Your task to perform on an android device: Go to Reddit.com Image 0: 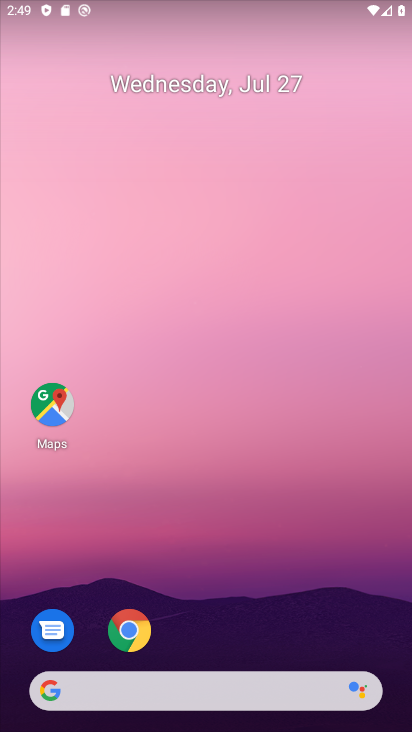
Step 0: press back button
Your task to perform on an android device: Go to Reddit.com Image 1: 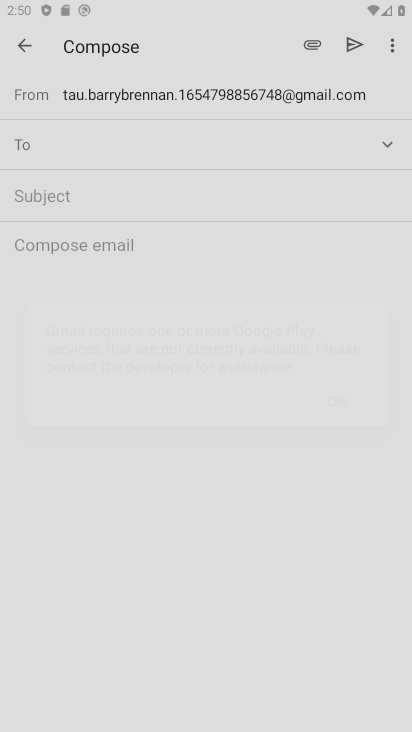
Step 1: click (165, 207)
Your task to perform on an android device: Go to Reddit.com Image 2: 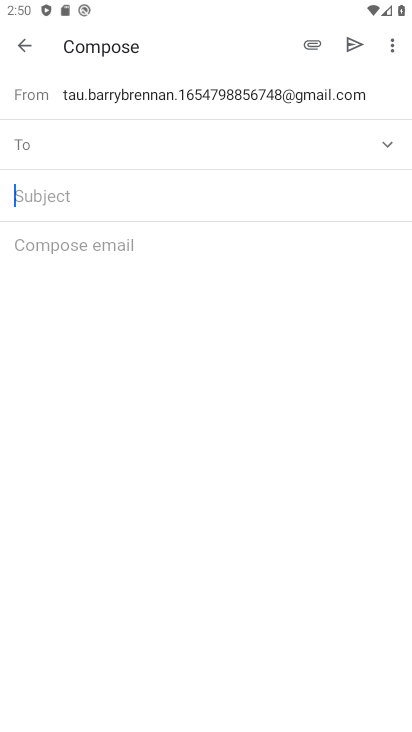
Step 2: drag from (207, 490) to (110, 102)
Your task to perform on an android device: Go to Reddit.com Image 3: 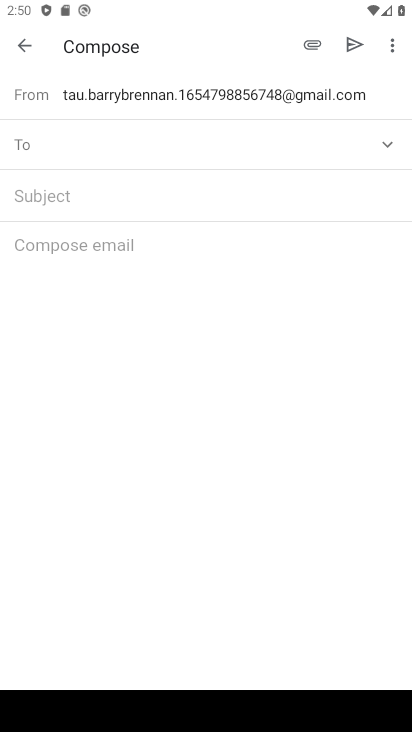
Step 3: drag from (174, 448) to (120, 151)
Your task to perform on an android device: Go to Reddit.com Image 4: 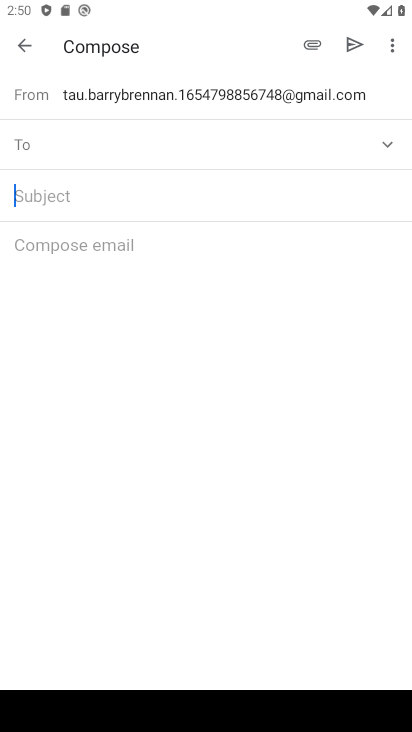
Step 4: click (20, 32)
Your task to perform on an android device: Go to Reddit.com Image 5: 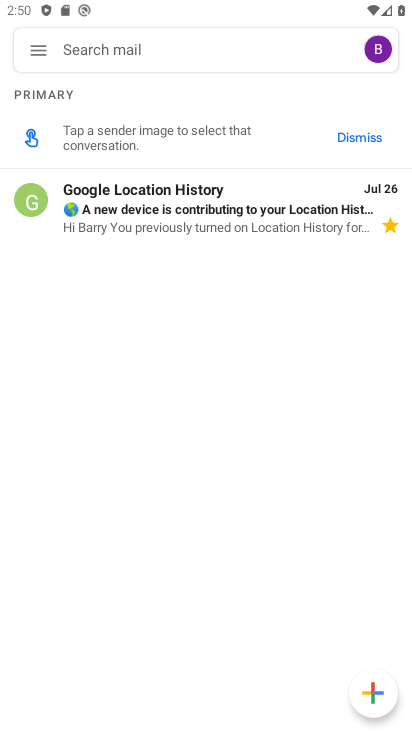
Step 5: press back button
Your task to perform on an android device: Go to Reddit.com Image 6: 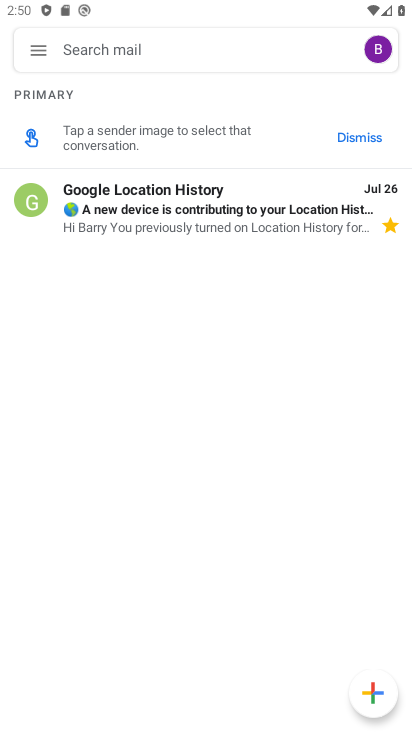
Step 6: press back button
Your task to perform on an android device: Go to Reddit.com Image 7: 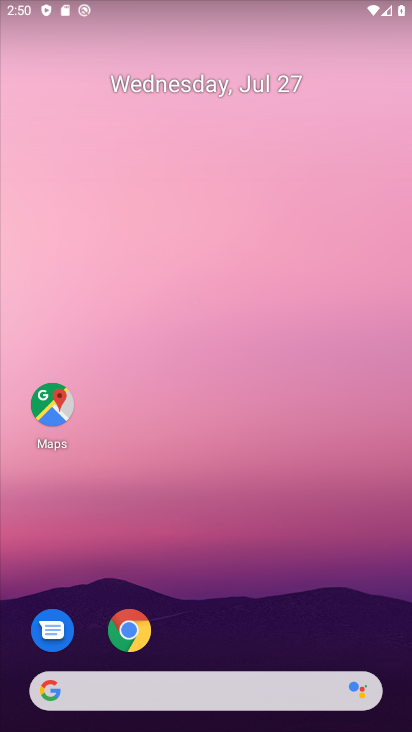
Step 7: click (98, 12)
Your task to perform on an android device: Go to Reddit.com Image 8: 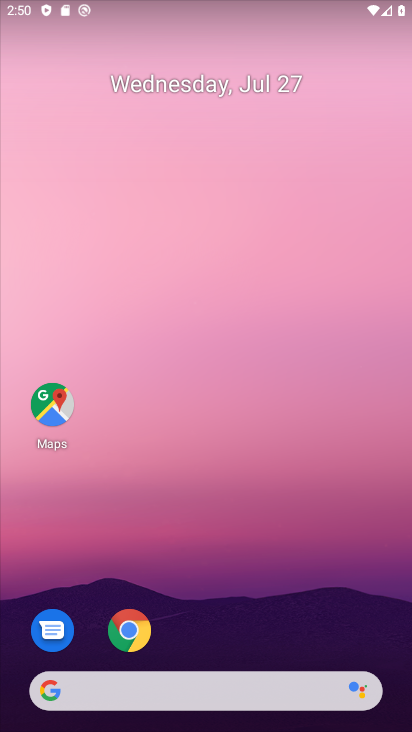
Step 8: drag from (166, 260) to (140, 146)
Your task to perform on an android device: Go to Reddit.com Image 9: 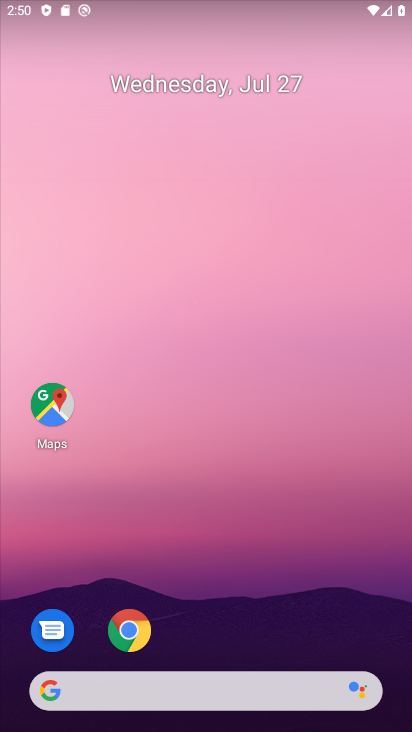
Step 9: drag from (154, 373) to (70, 10)
Your task to perform on an android device: Go to Reddit.com Image 10: 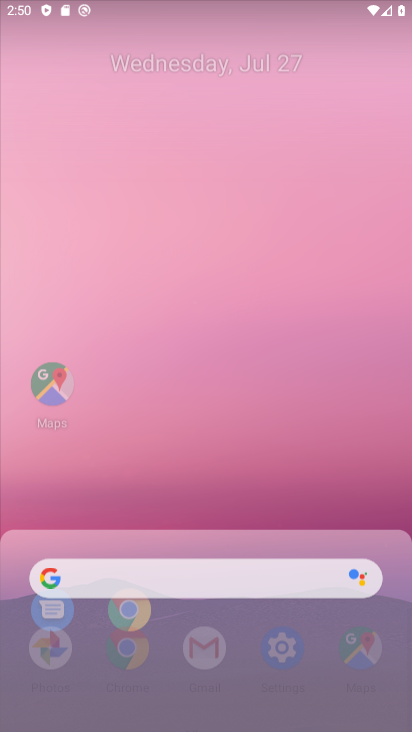
Step 10: drag from (163, 418) to (125, 268)
Your task to perform on an android device: Go to Reddit.com Image 11: 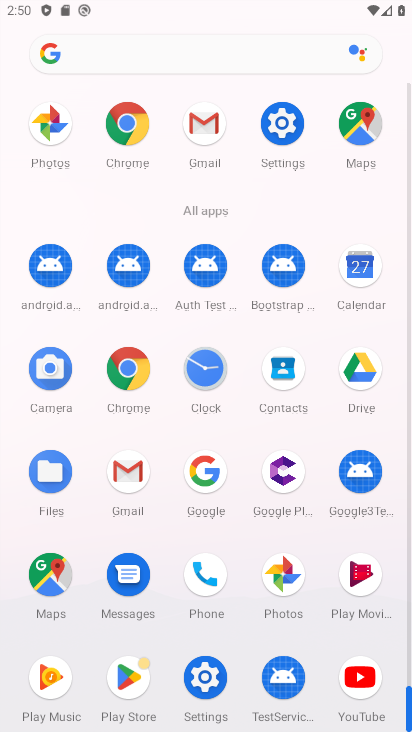
Step 11: drag from (160, 540) to (126, 114)
Your task to perform on an android device: Go to Reddit.com Image 12: 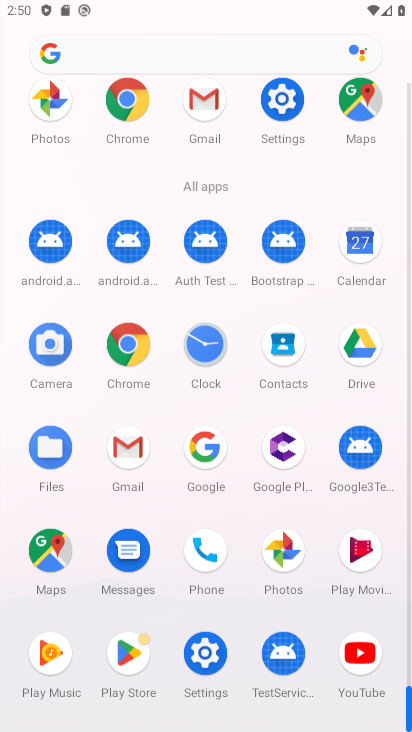
Step 12: drag from (312, 532) to (249, 205)
Your task to perform on an android device: Go to Reddit.com Image 13: 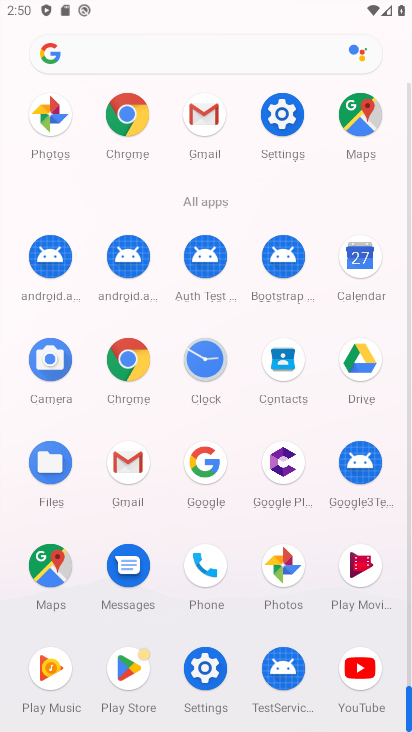
Step 13: click (131, 112)
Your task to perform on an android device: Go to Reddit.com Image 14: 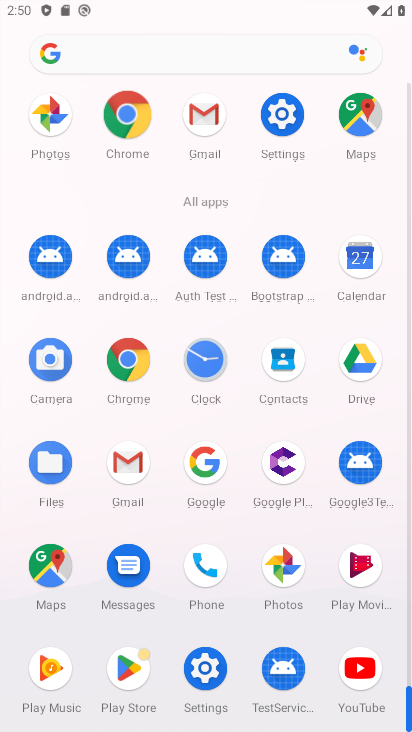
Step 14: click (130, 110)
Your task to perform on an android device: Go to Reddit.com Image 15: 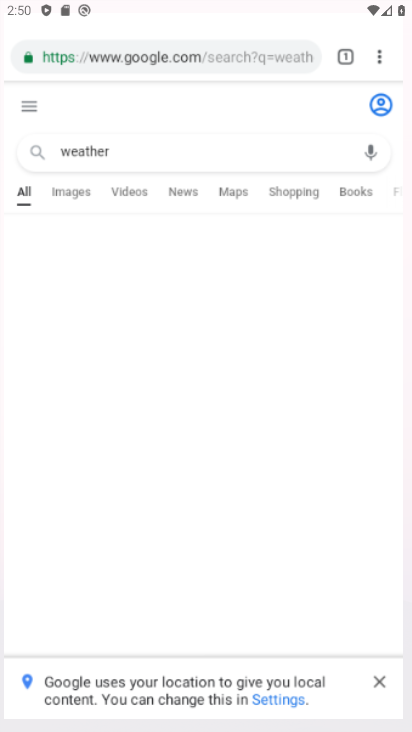
Step 15: click (130, 110)
Your task to perform on an android device: Go to Reddit.com Image 16: 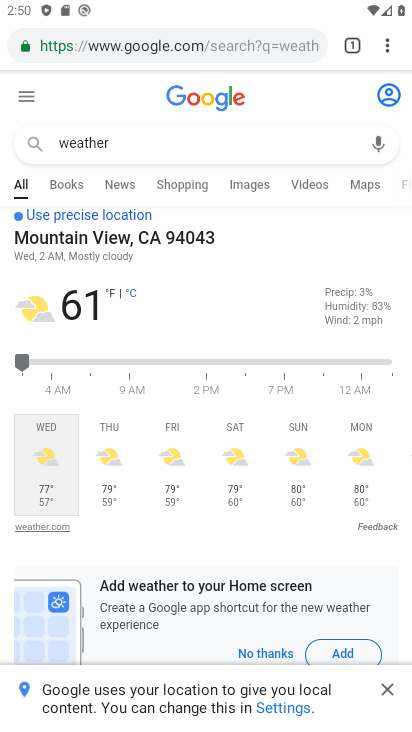
Step 16: click (114, 139)
Your task to perform on an android device: Go to Reddit.com Image 17: 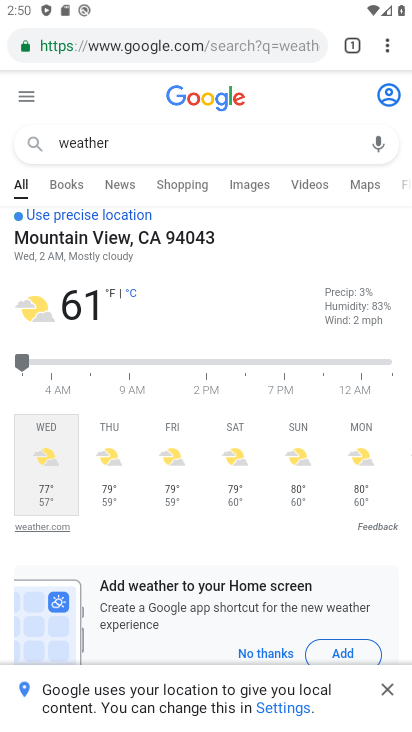
Step 17: click (114, 139)
Your task to perform on an android device: Go to Reddit.com Image 18: 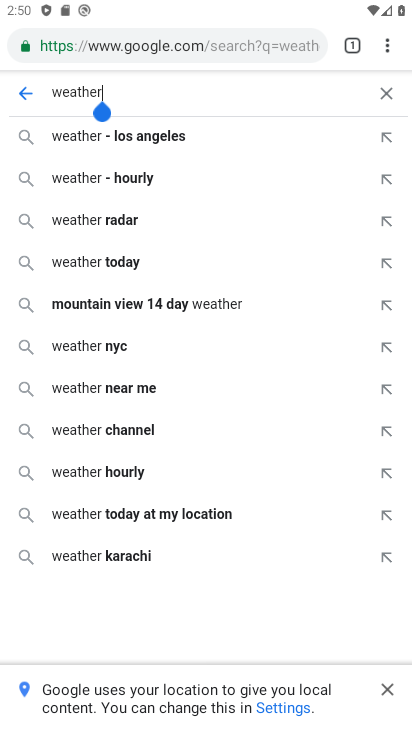
Step 18: click (117, 140)
Your task to perform on an android device: Go to Reddit.com Image 19: 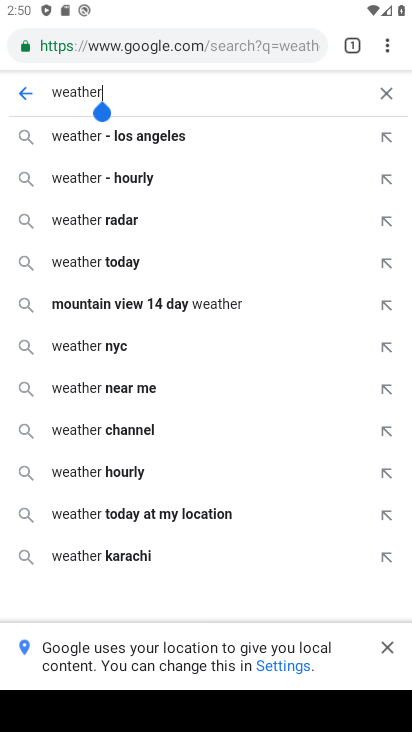
Step 19: click (117, 140)
Your task to perform on an android device: Go to Reddit.com Image 20: 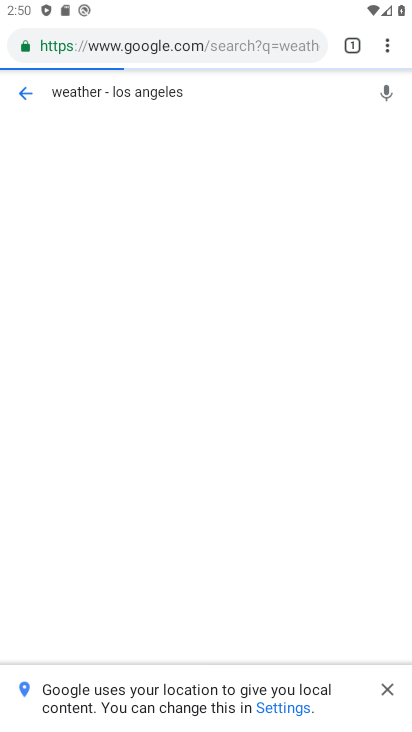
Step 20: click (25, 91)
Your task to perform on an android device: Go to Reddit.com Image 21: 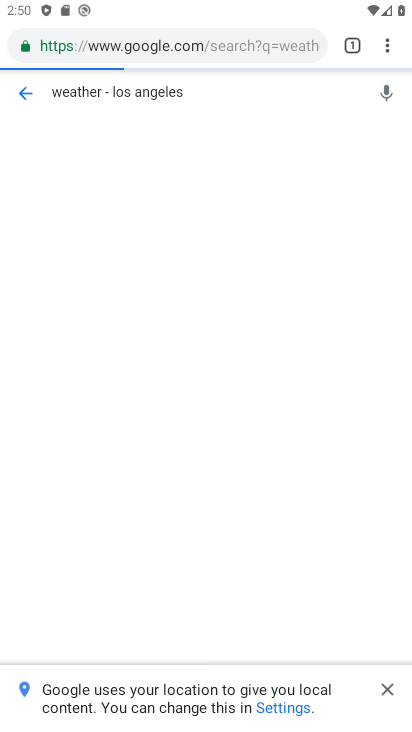
Step 21: click (25, 90)
Your task to perform on an android device: Go to Reddit.com Image 22: 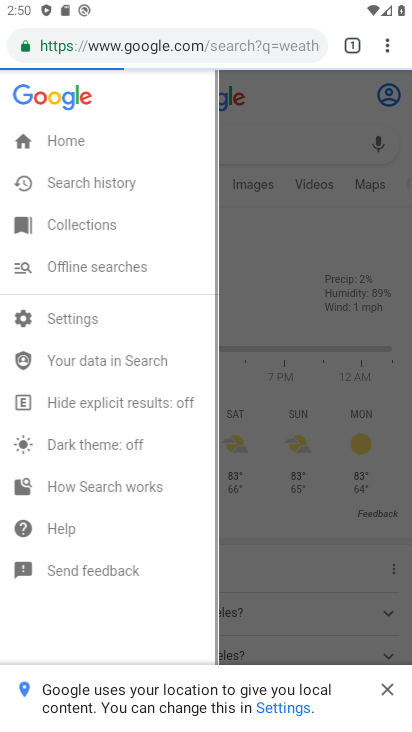
Step 22: click (345, 279)
Your task to perform on an android device: Go to Reddit.com Image 23: 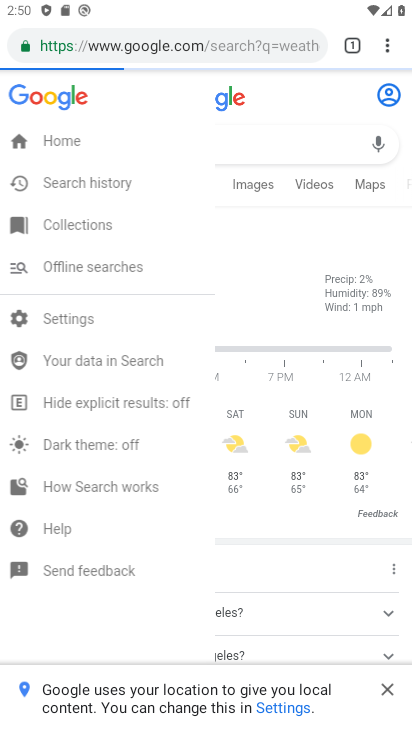
Step 23: drag from (185, 277) to (316, 245)
Your task to perform on an android device: Go to Reddit.com Image 24: 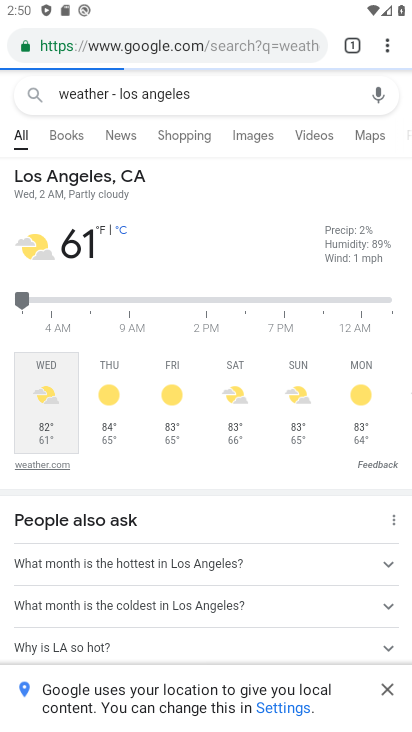
Step 24: click (222, 94)
Your task to perform on an android device: Go to Reddit.com Image 25: 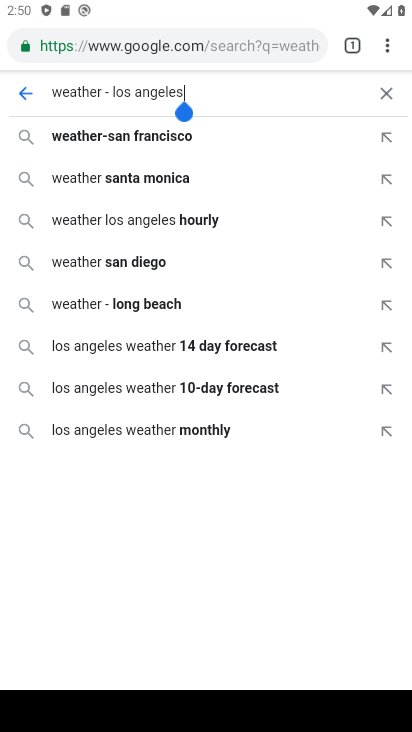
Step 25: drag from (387, 41) to (206, 86)
Your task to perform on an android device: Go to Reddit.com Image 26: 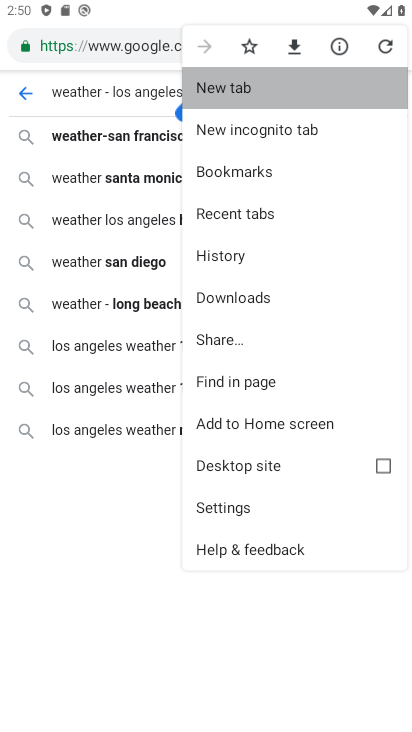
Step 26: click (206, 85)
Your task to perform on an android device: Go to Reddit.com Image 27: 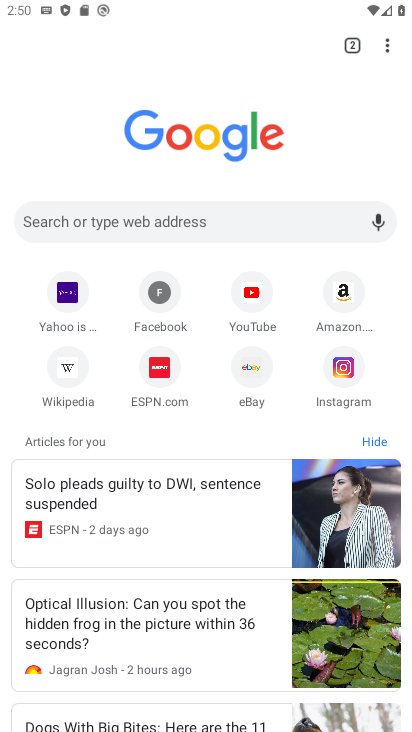
Step 27: click (83, 215)
Your task to perform on an android device: Go to Reddit.com Image 28: 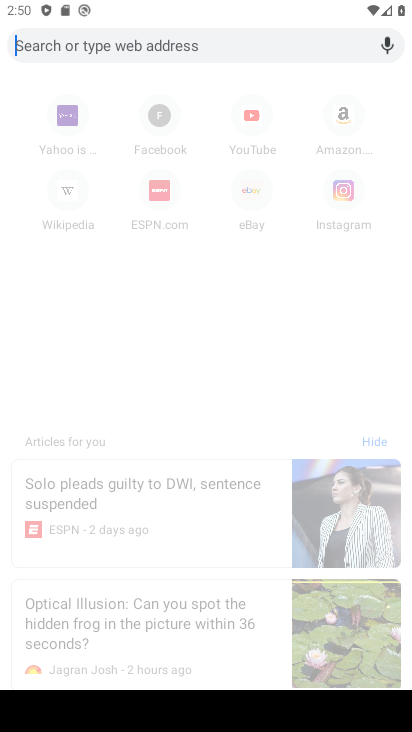
Step 28: type "reddit.com"
Your task to perform on an android device: Go to Reddit.com Image 29: 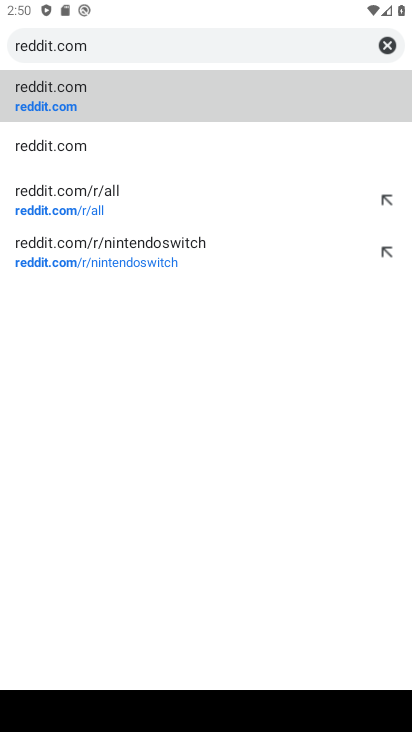
Step 29: click (73, 91)
Your task to perform on an android device: Go to Reddit.com Image 30: 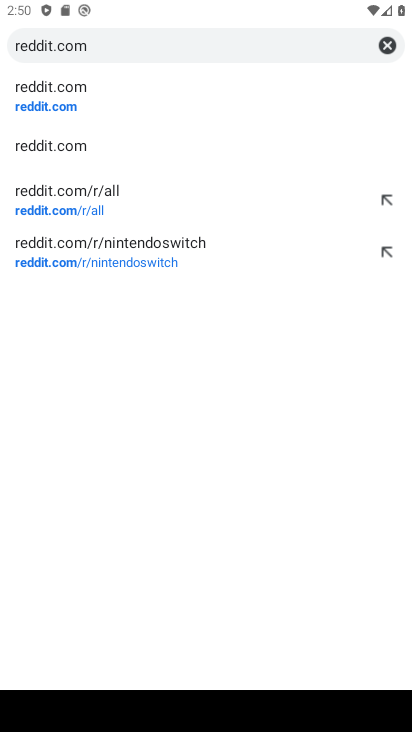
Step 30: click (71, 89)
Your task to perform on an android device: Go to Reddit.com Image 31: 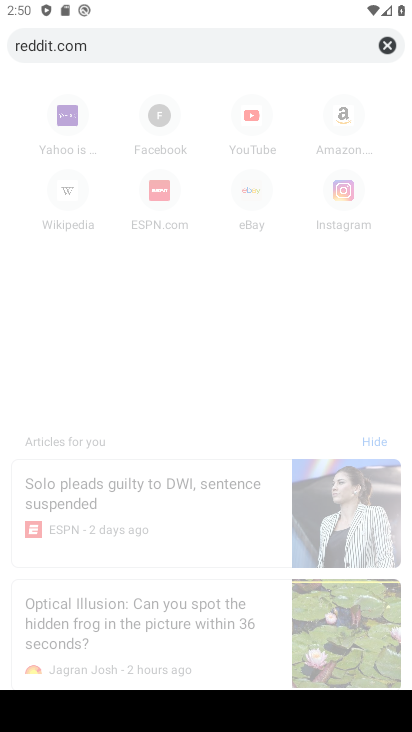
Step 31: click (71, 89)
Your task to perform on an android device: Go to Reddit.com Image 32: 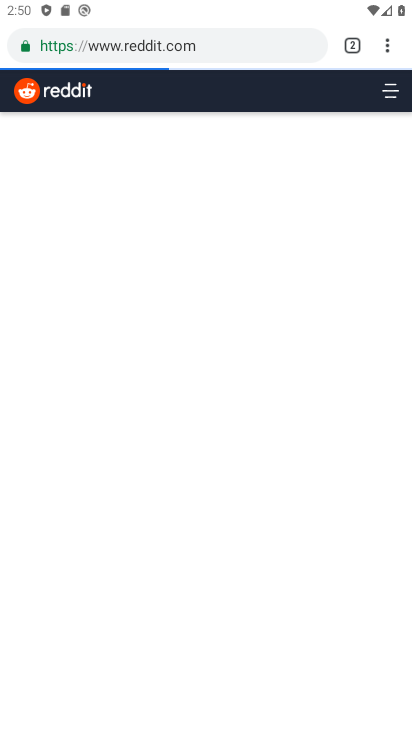
Step 32: task complete